Your task to perform on an android device: Go to notification settings Image 0: 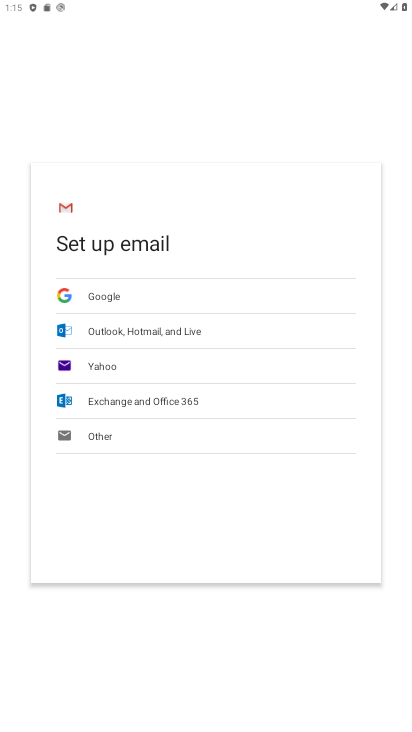
Step 0: press home button
Your task to perform on an android device: Go to notification settings Image 1: 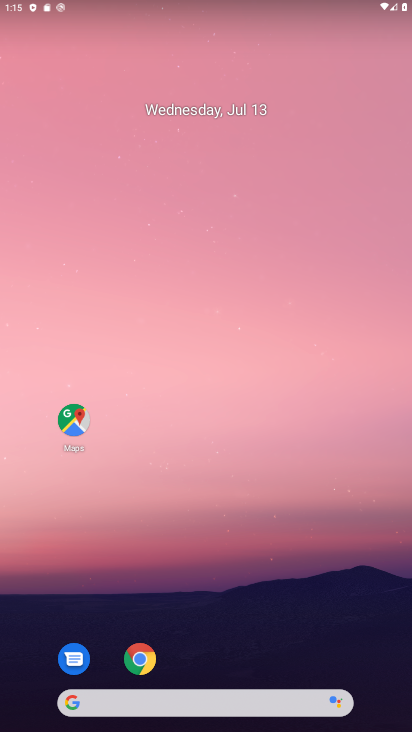
Step 1: drag from (373, 649) to (273, 115)
Your task to perform on an android device: Go to notification settings Image 2: 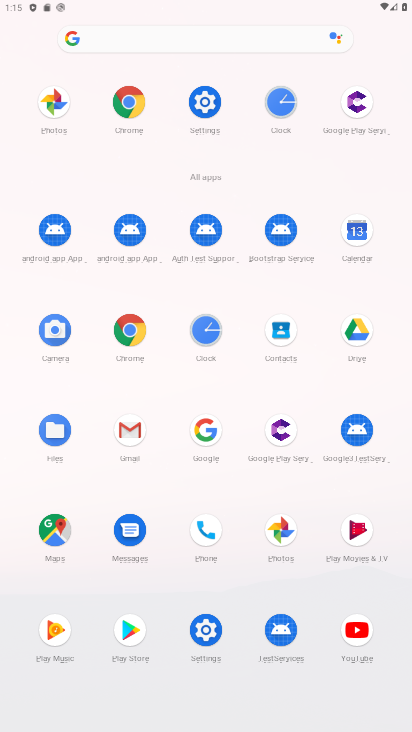
Step 2: click (209, 632)
Your task to perform on an android device: Go to notification settings Image 3: 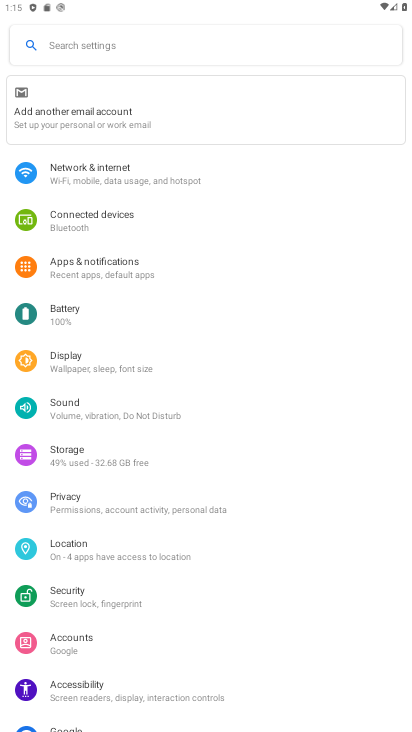
Step 3: click (88, 256)
Your task to perform on an android device: Go to notification settings Image 4: 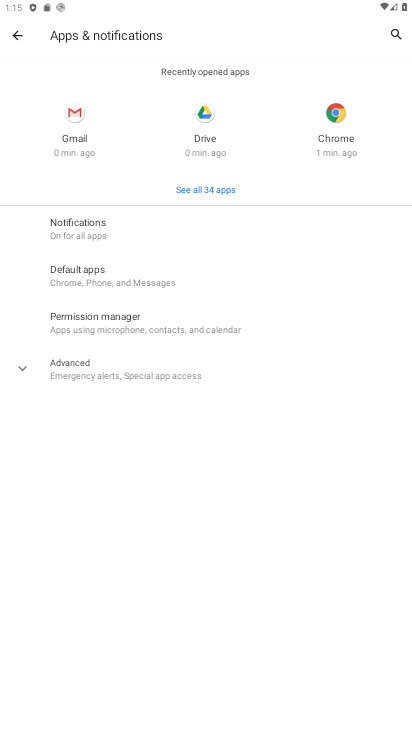
Step 4: click (80, 227)
Your task to perform on an android device: Go to notification settings Image 5: 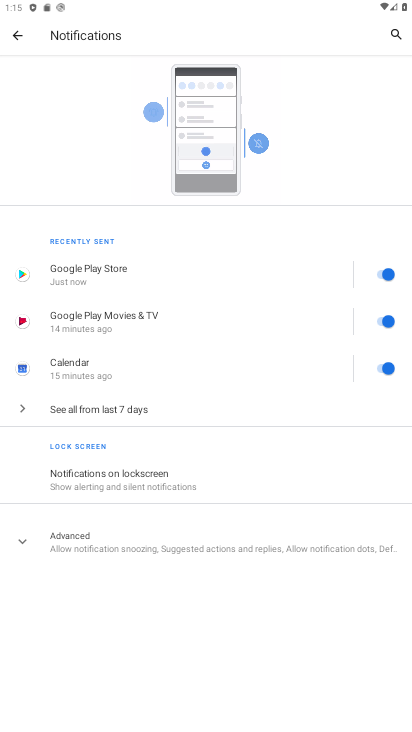
Step 5: click (23, 535)
Your task to perform on an android device: Go to notification settings Image 6: 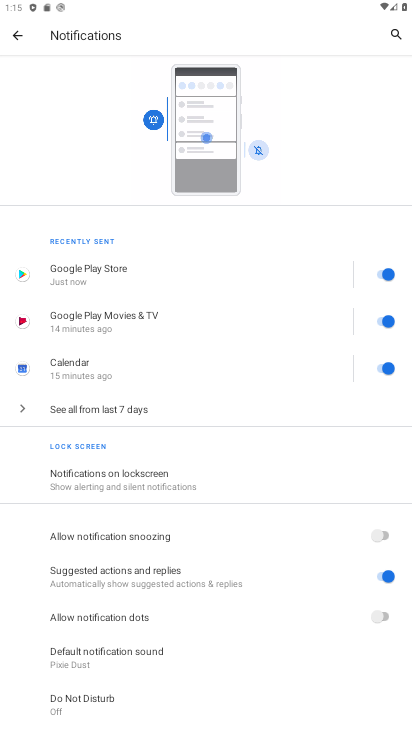
Step 6: task complete